Your task to perform on an android device: Open privacy settings Image 0: 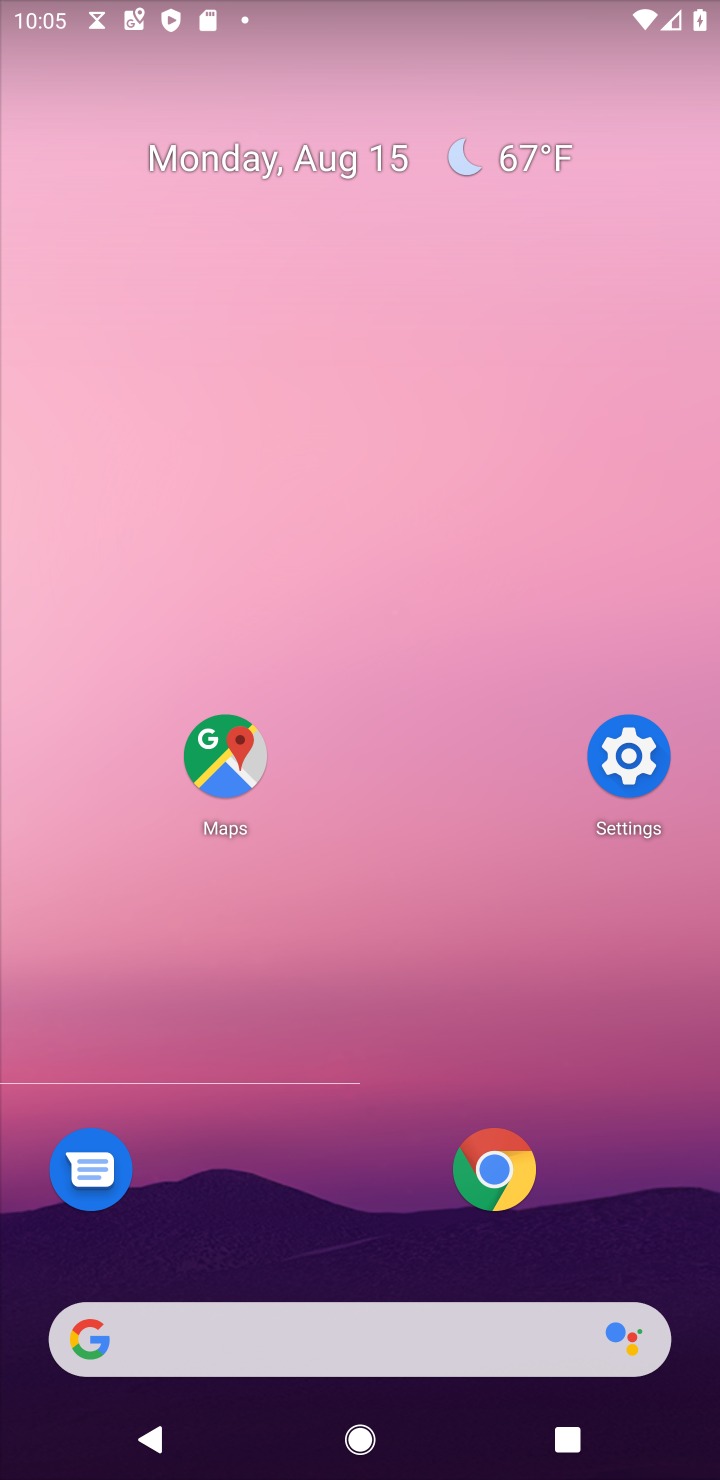
Step 0: click (632, 763)
Your task to perform on an android device: Open privacy settings Image 1: 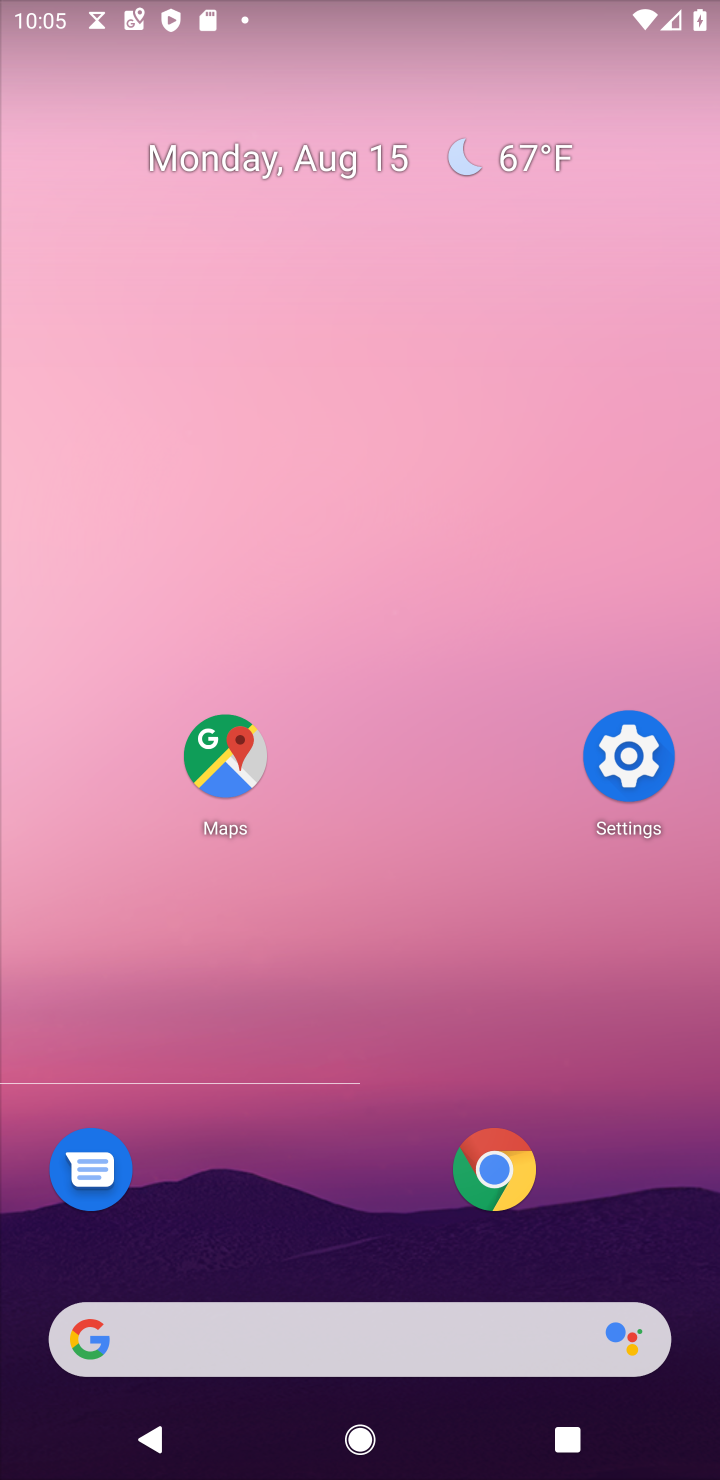
Step 1: click (632, 763)
Your task to perform on an android device: Open privacy settings Image 2: 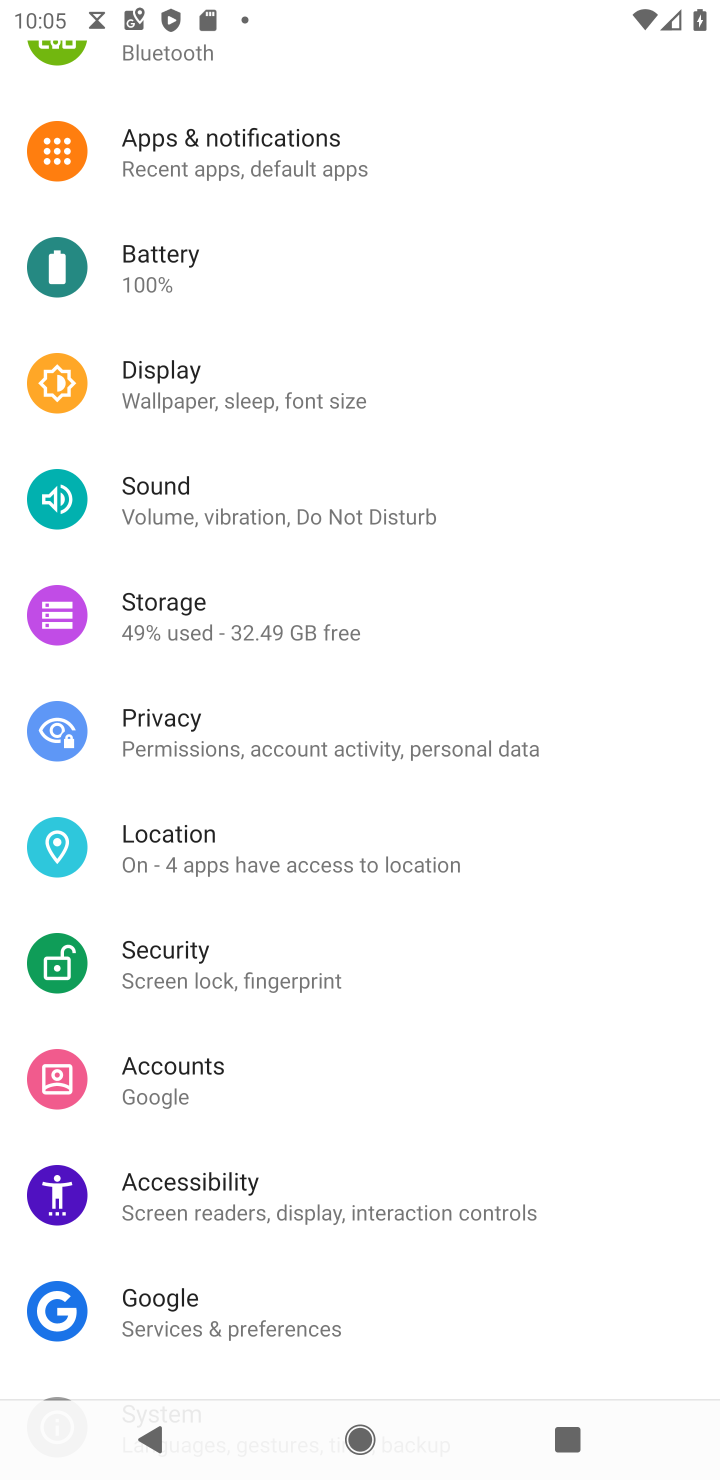
Step 2: click (167, 733)
Your task to perform on an android device: Open privacy settings Image 3: 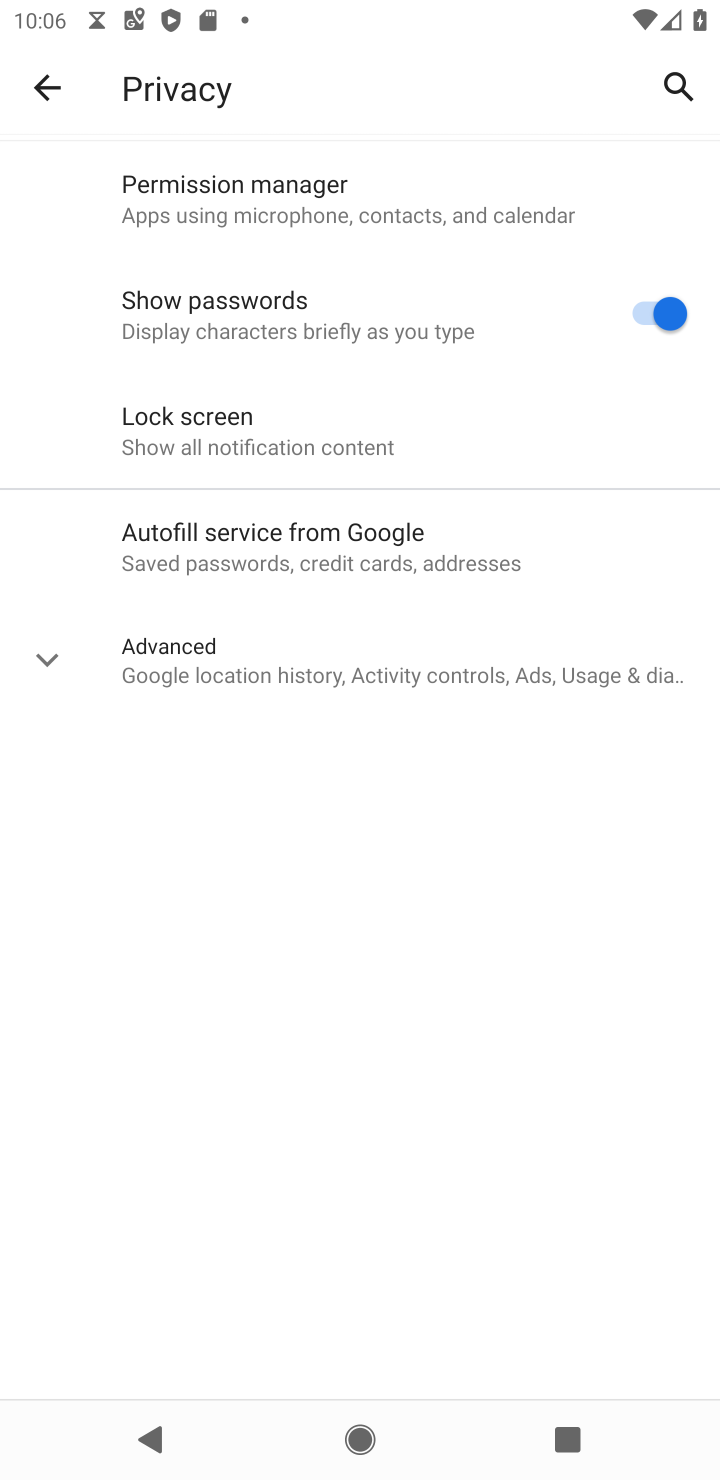
Step 3: task complete